Your task to perform on an android device: Open maps Image 0: 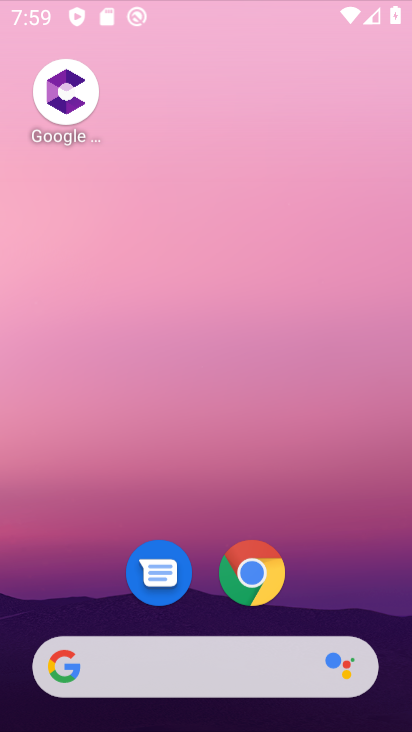
Step 0: drag from (347, 596) to (248, 203)
Your task to perform on an android device: Open maps Image 1: 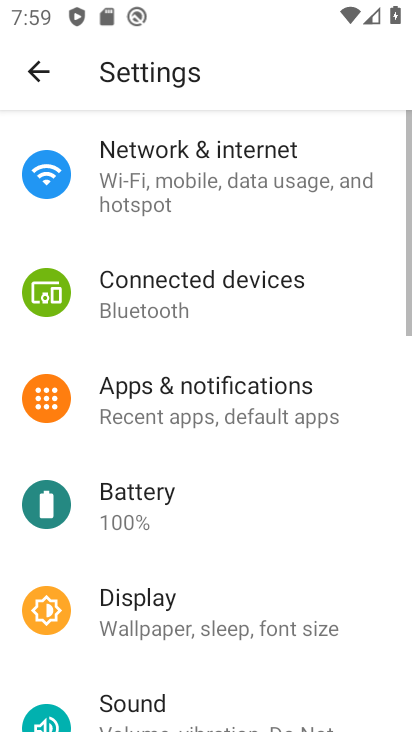
Step 1: press home button
Your task to perform on an android device: Open maps Image 2: 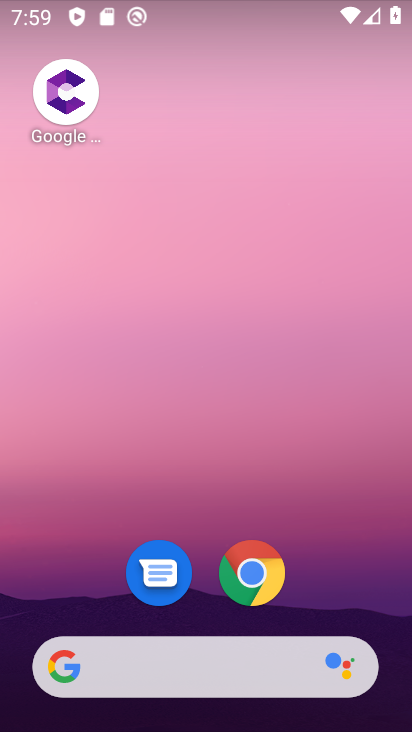
Step 2: drag from (359, 602) to (258, 45)
Your task to perform on an android device: Open maps Image 3: 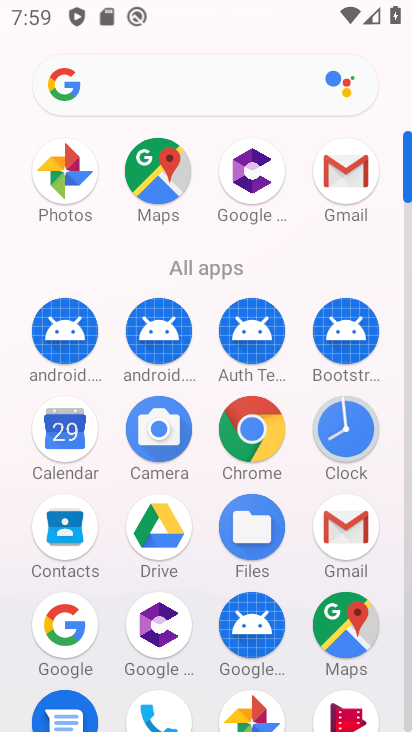
Step 3: click (138, 170)
Your task to perform on an android device: Open maps Image 4: 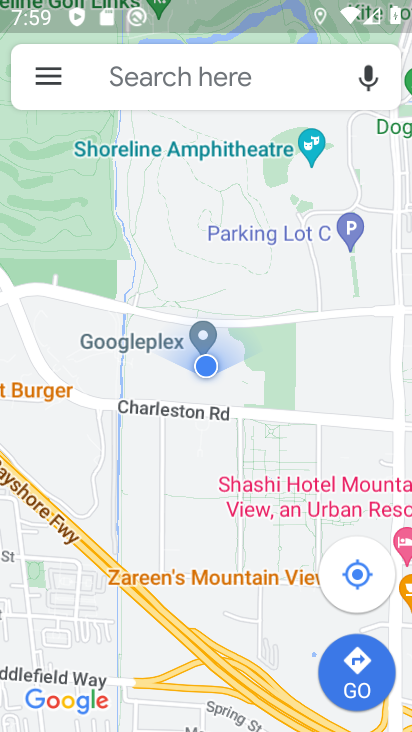
Step 4: task complete